Your task to perform on an android device: Go to Yahoo.com Image 0: 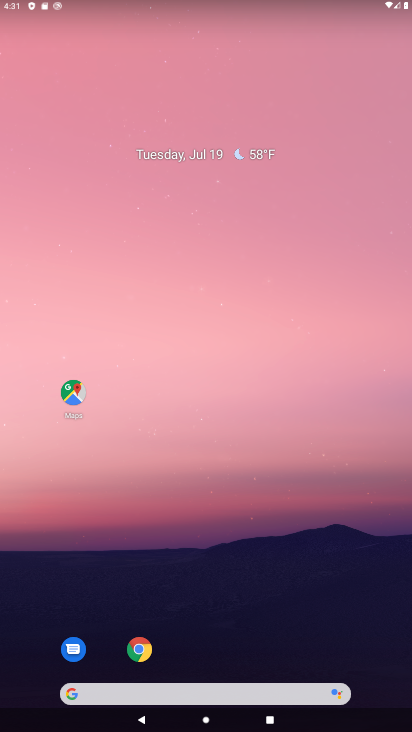
Step 0: drag from (328, 594) to (249, 76)
Your task to perform on an android device: Go to Yahoo.com Image 1: 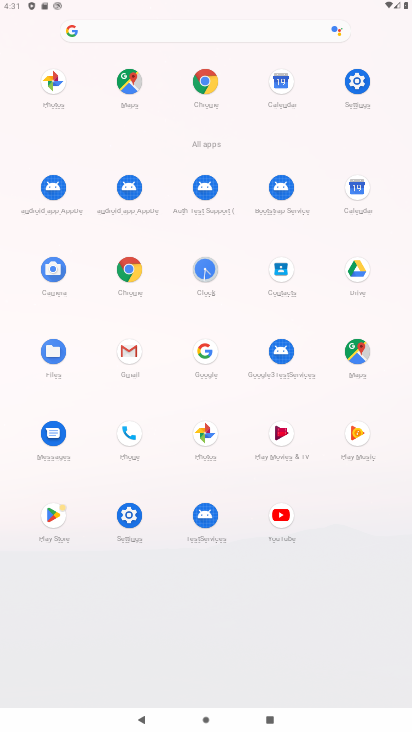
Step 1: click (200, 77)
Your task to perform on an android device: Go to Yahoo.com Image 2: 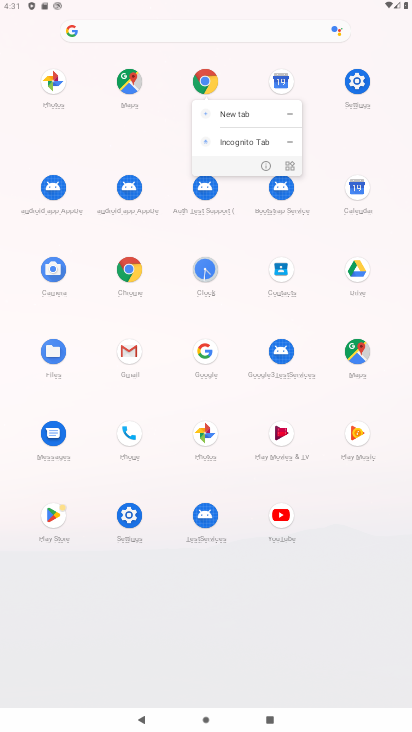
Step 2: click (200, 79)
Your task to perform on an android device: Go to Yahoo.com Image 3: 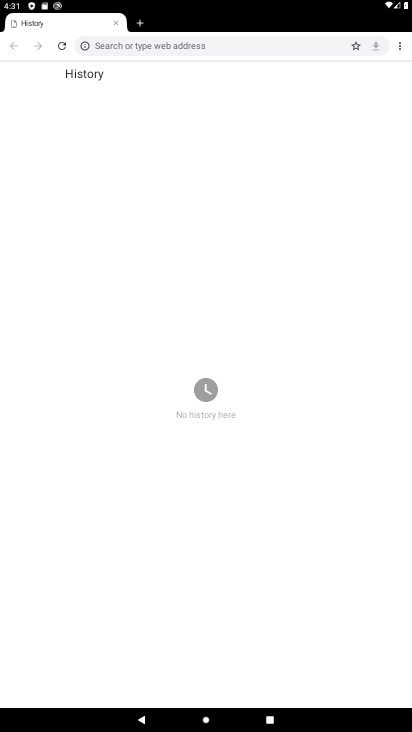
Step 3: click (189, 47)
Your task to perform on an android device: Go to Yahoo.com Image 4: 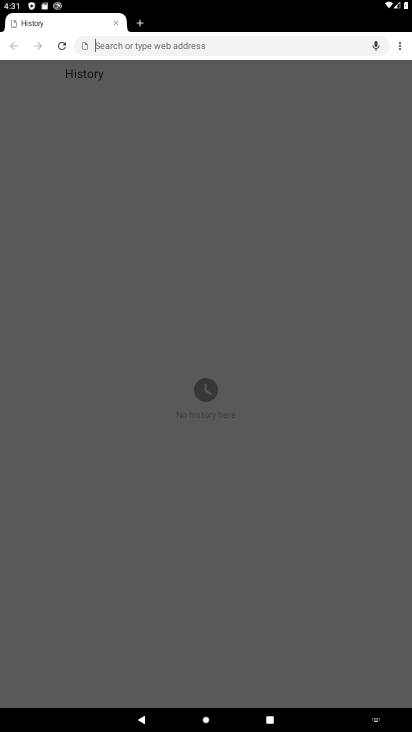
Step 4: type "yahoo.com"
Your task to perform on an android device: Go to Yahoo.com Image 5: 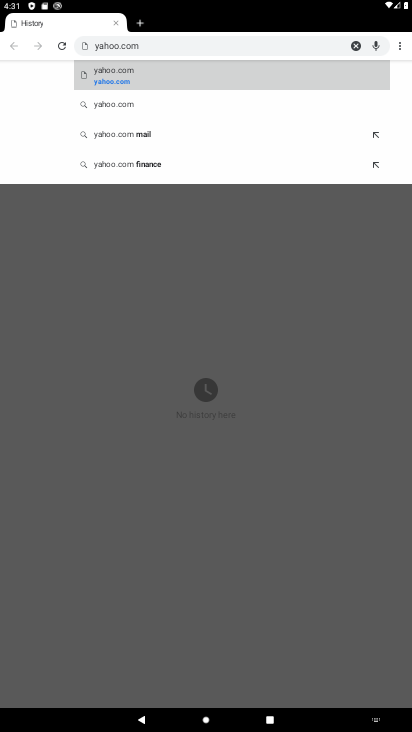
Step 5: click (109, 78)
Your task to perform on an android device: Go to Yahoo.com Image 6: 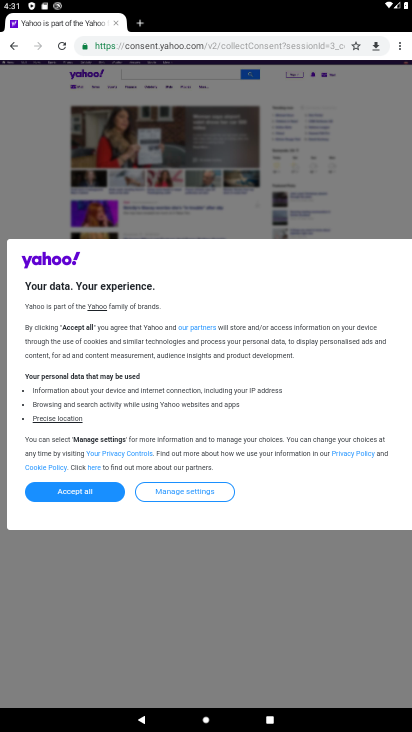
Step 6: task complete